Your task to perform on an android device: Go to Google Image 0: 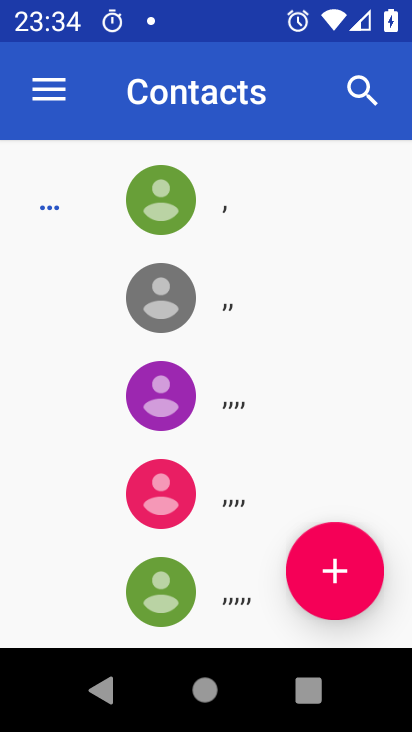
Step 0: press home button
Your task to perform on an android device: Go to Google Image 1: 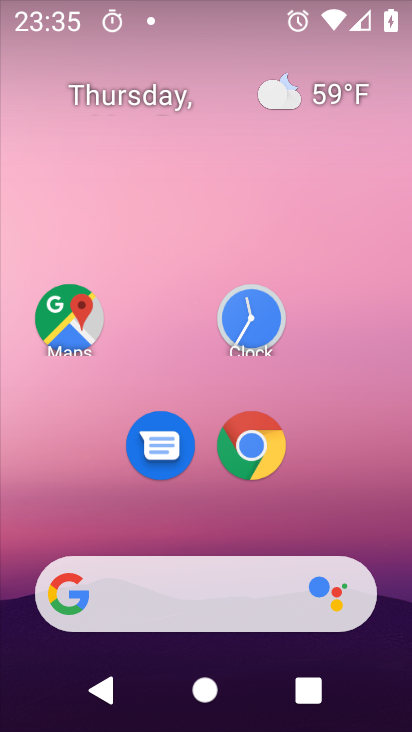
Step 1: drag from (193, 613) to (67, 29)
Your task to perform on an android device: Go to Google Image 2: 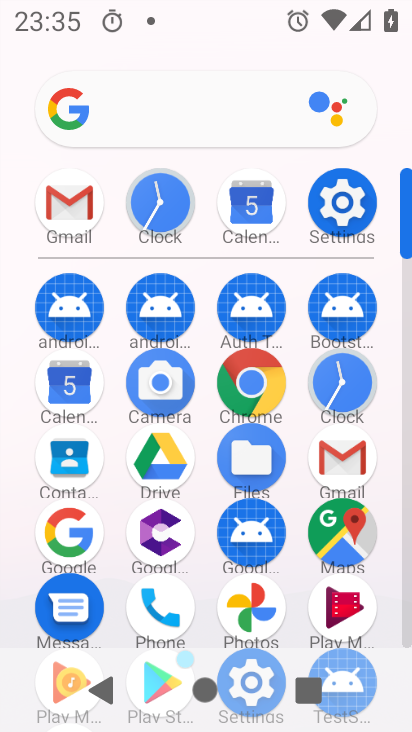
Step 2: click (82, 543)
Your task to perform on an android device: Go to Google Image 3: 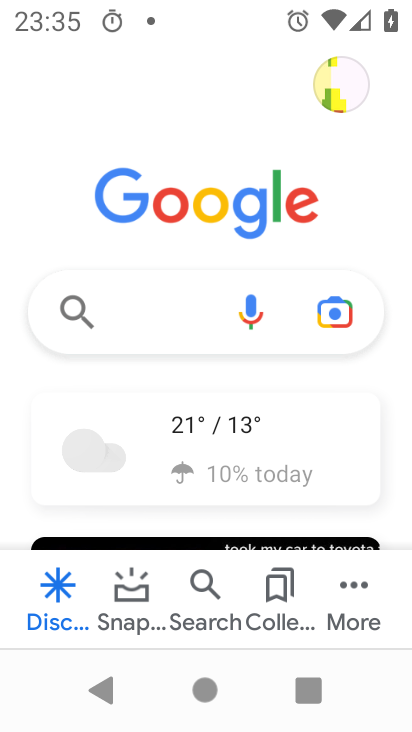
Step 3: task complete